Your task to perform on an android device: open the mobile data screen to see how much data has been used Image 0: 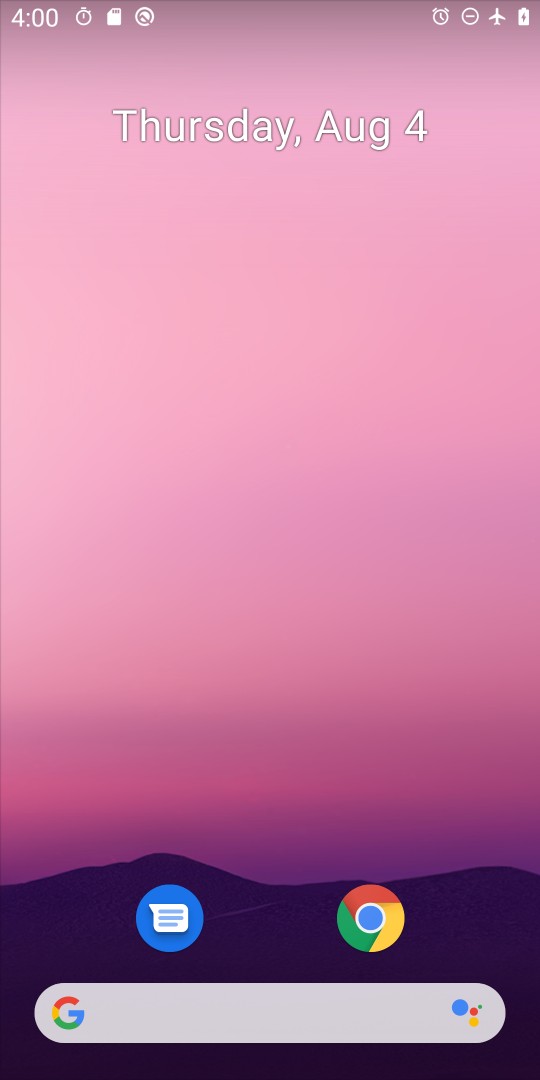
Step 0: drag from (256, 879) to (271, 234)
Your task to perform on an android device: open the mobile data screen to see how much data has been used Image 1: 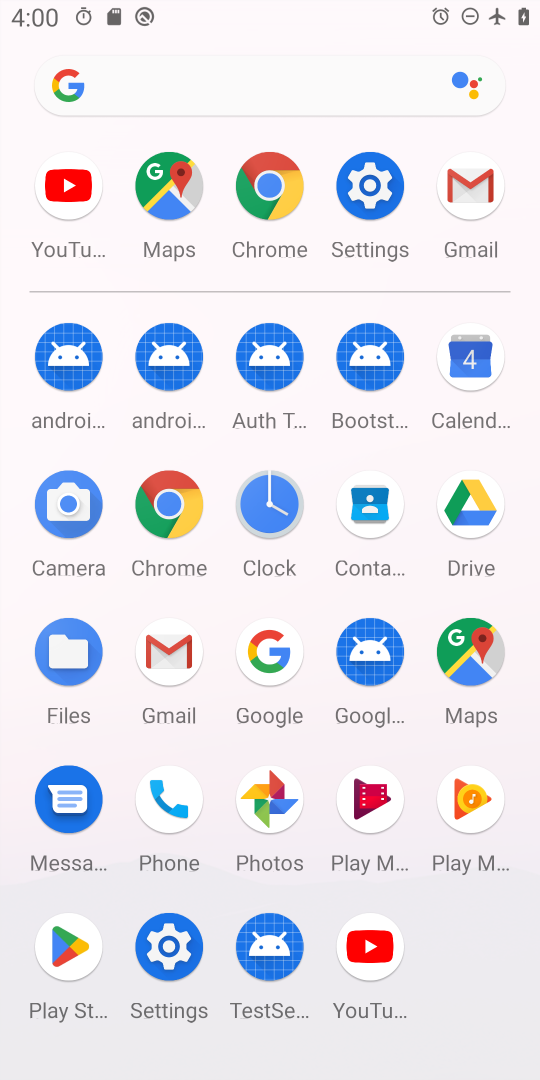
Step 1: click (359, 207)
Your task to perform on an android device: open the mobile data screen to see how much data has been used Image 2: 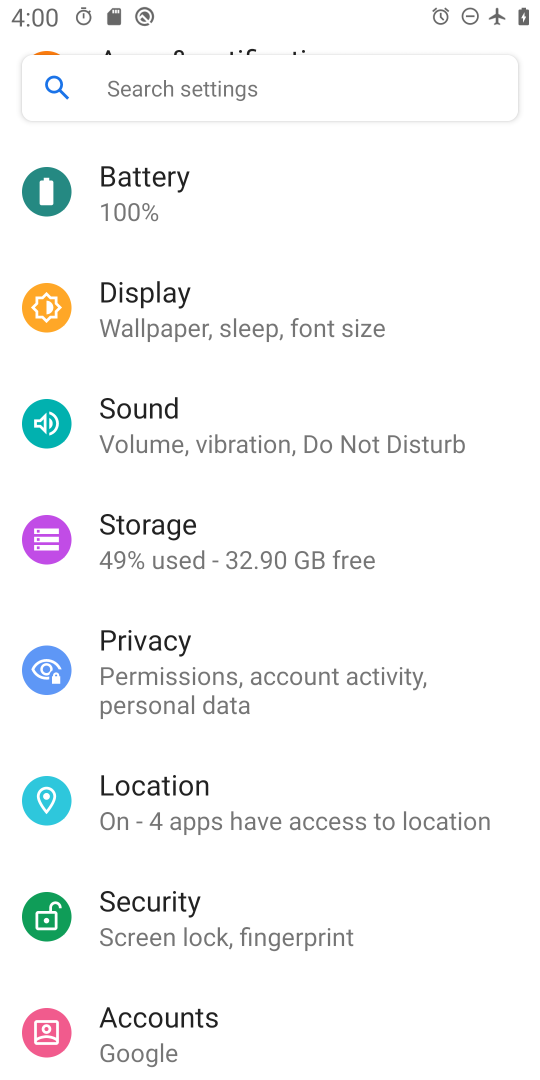
Step 2: drag from (314, 221) to (349, 758)
Your task to perform on an android device: open the mobile data screen to see how much data has been used Image 3: 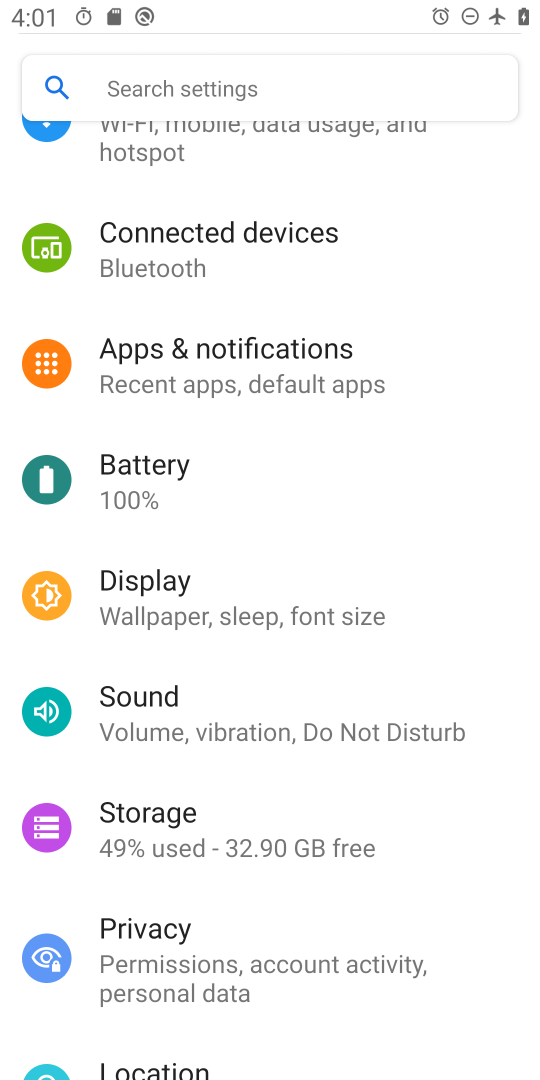
Step 3: drag from (237, 195) to (330, 738)
Your task to perform on an android device: open the mobile data screen to see how much data has been used Image 4: 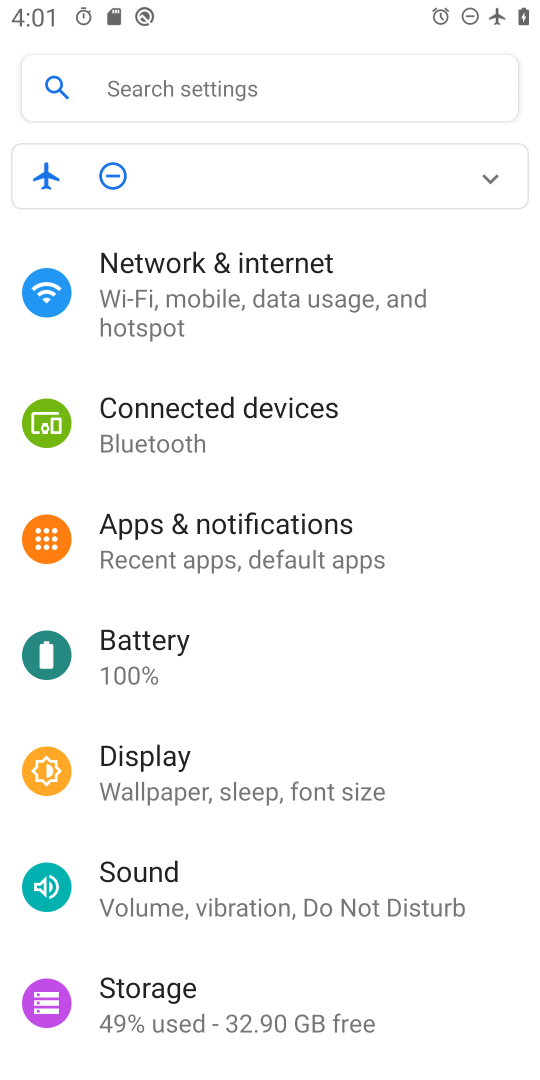
Step 4: click (232, 324)
Your task to perform on an android device: open the mobile data screen to see how much data has been used Image 5: 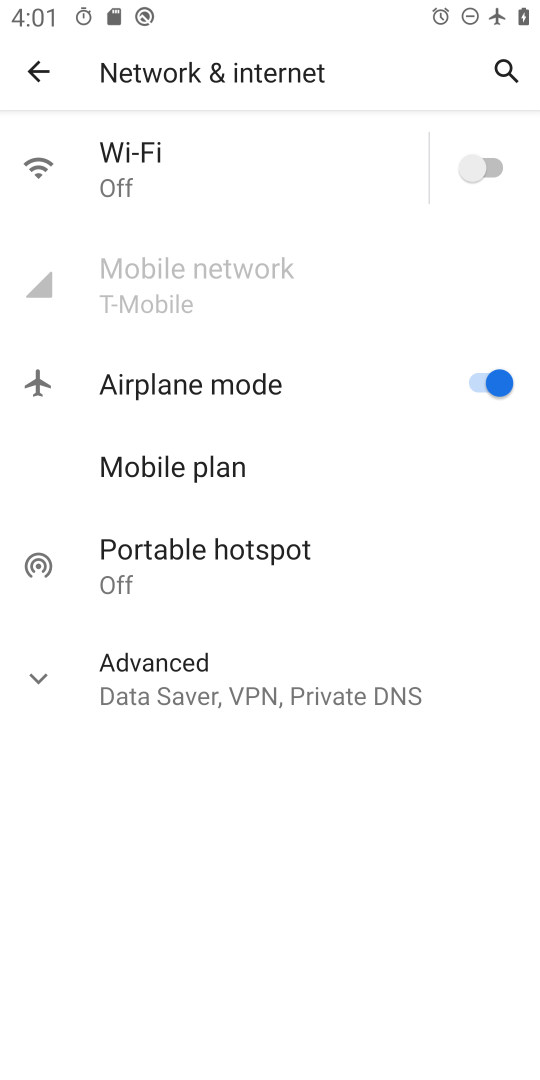
Step 5: task complete